Your task to perform on an android device: Add jbl charge 4 to the cart on bestbuy Image 0: 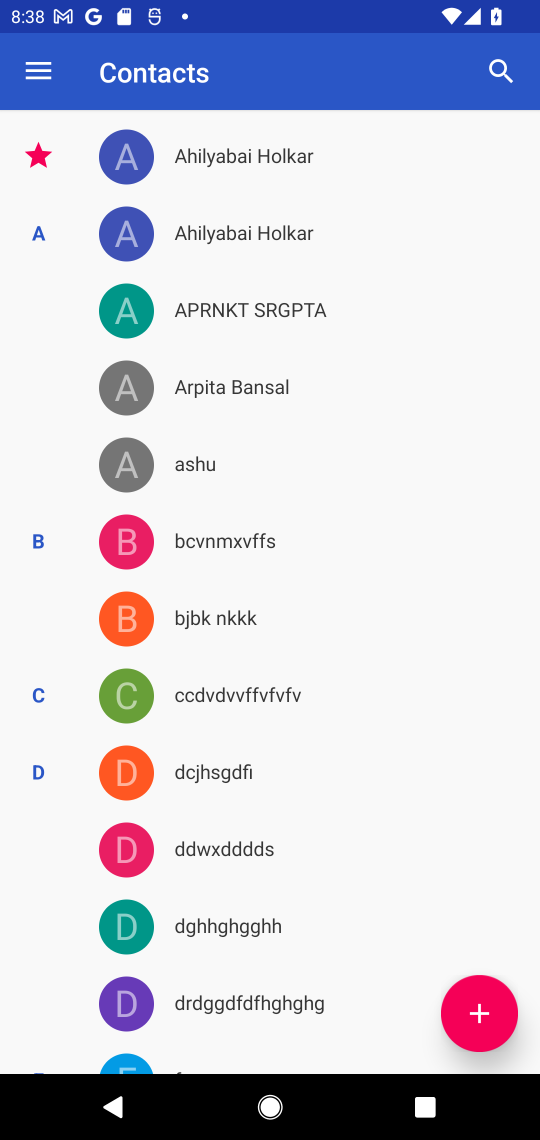
Step 0: press home button
Your task to perform on an android device: Add jbl charge 4 to the cart on bestbuy Image 1: 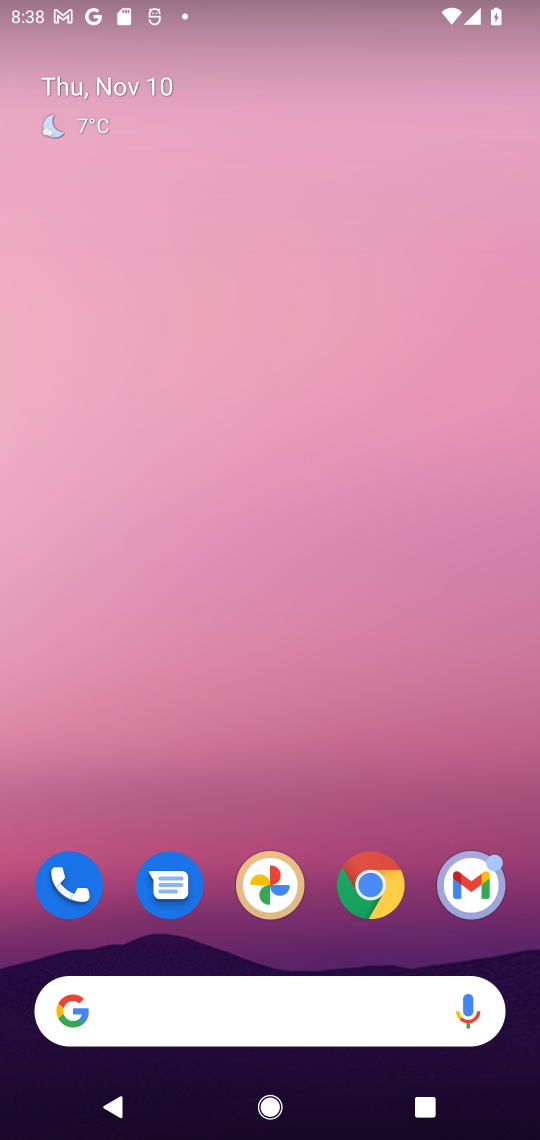
Step 1: click (391, 872)
Your task to perform on an android device: Add jbl charge 4 to the cart on bestbuy Image 2: 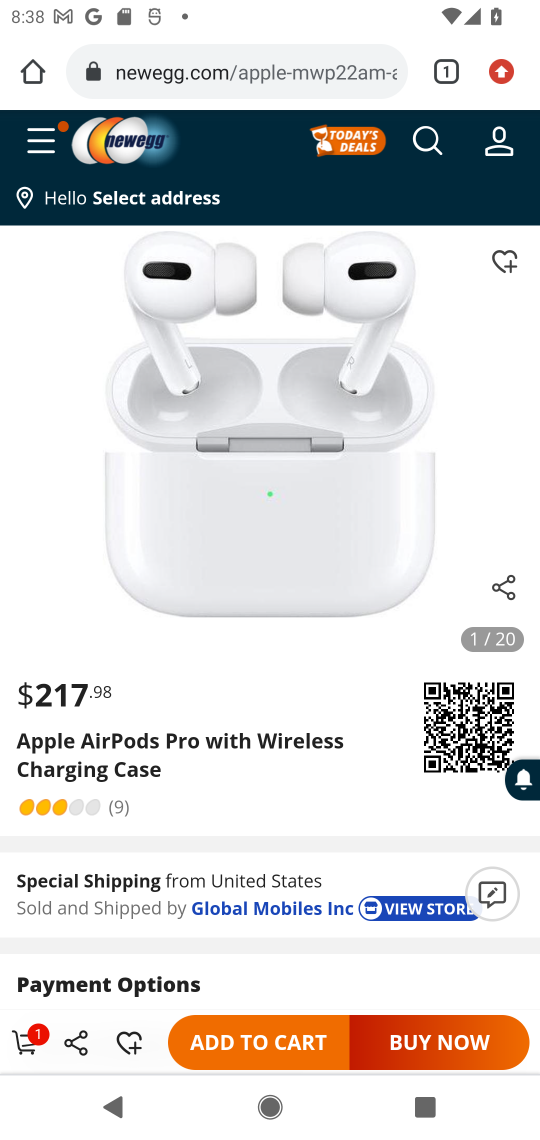
Step 2: click (312, 49)
Your task to perform on an android device: Add jbl charge 4 to the cart on bestbuy Image 3: 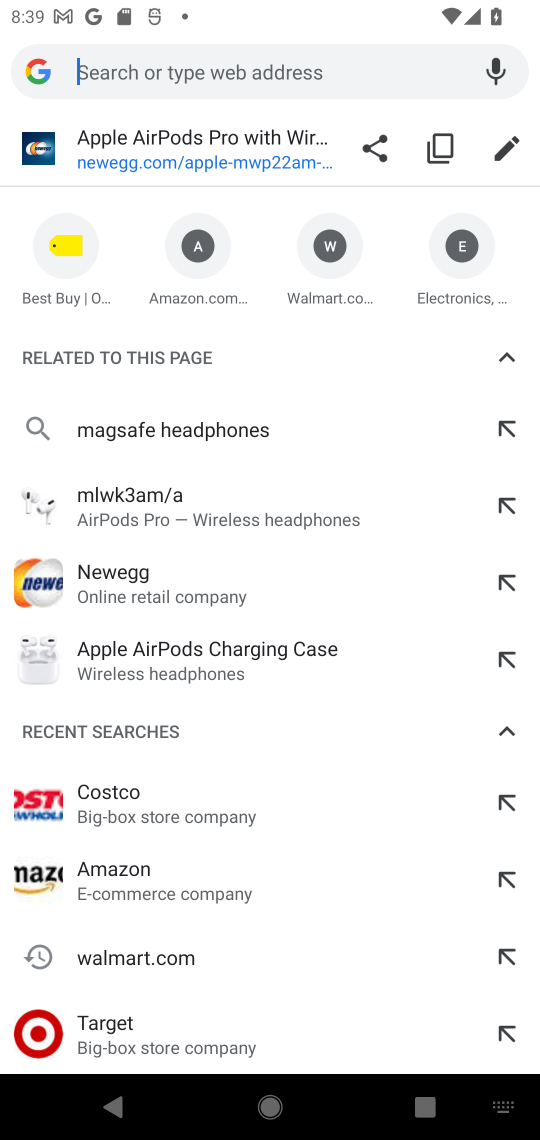
Step 3: type "bestbuy"
Your task to perform on an android device: Add jbl charge 4 to the cart on bestbuy Image 4: 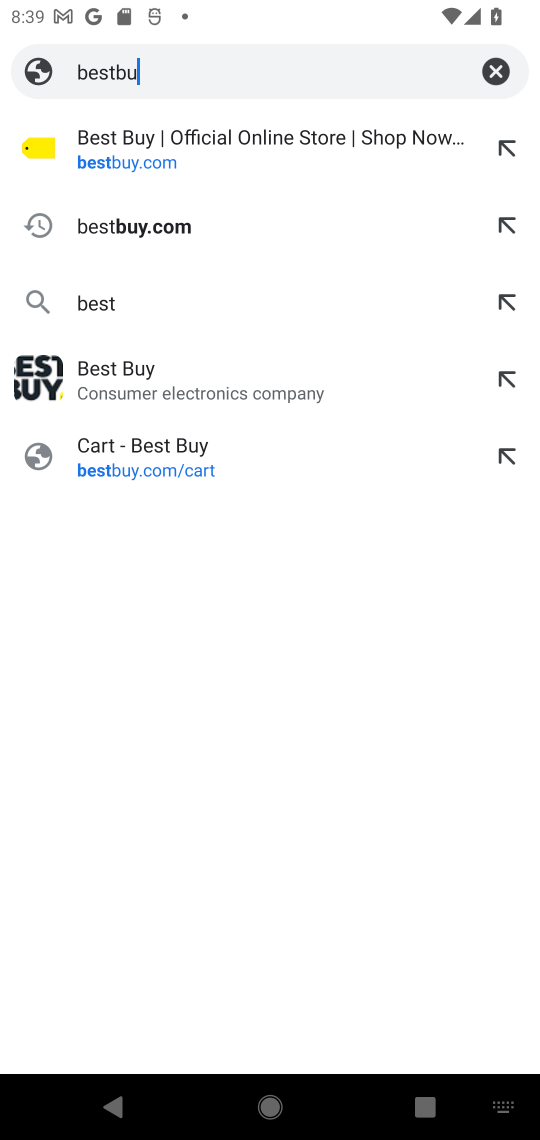
Step 4: press enter
Your task to perform on an android device: Add jbl charge 4 to the cart on bestbuy Image 5: 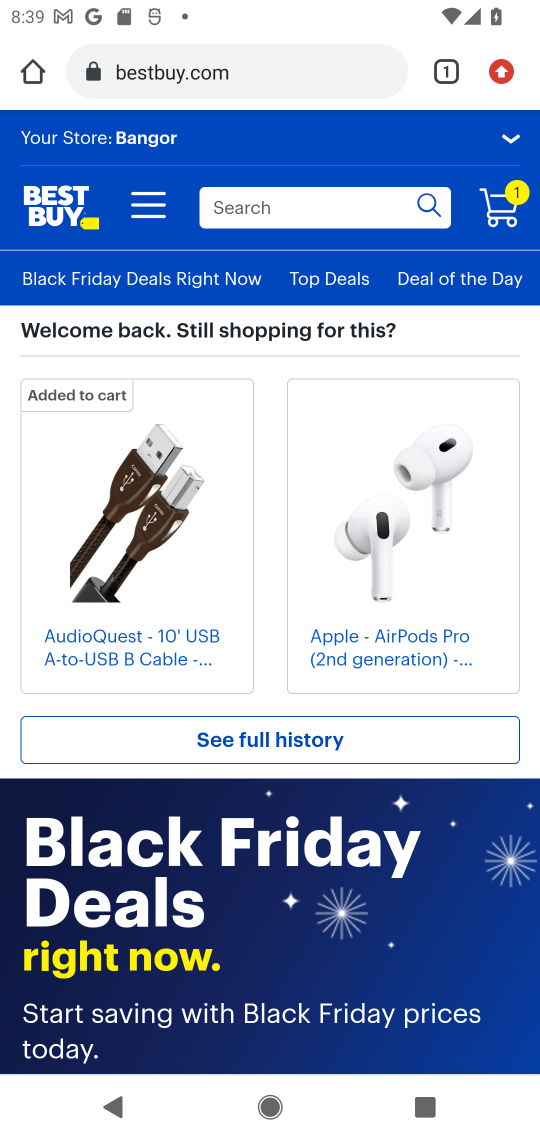
Step 5: click (360, 184)
Your task to perform on an android device: Add jbl charge 4 to the cart on bestbuy Image 6: 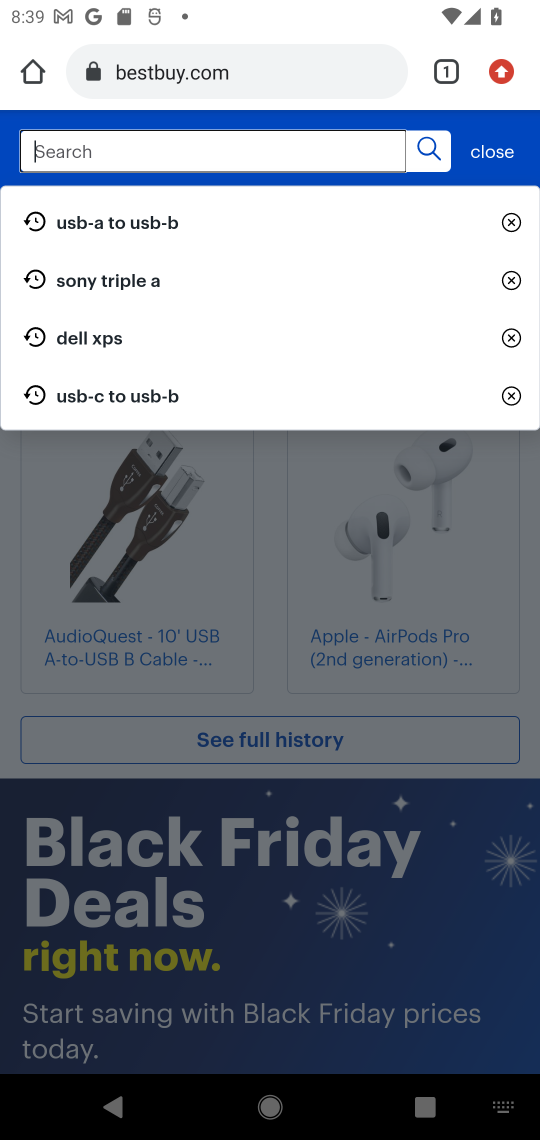
Step 6: type "jbl charge 4"
Your task to perform on an android device: Add jbl charge 4 to the cart on bestbuy Image 7: 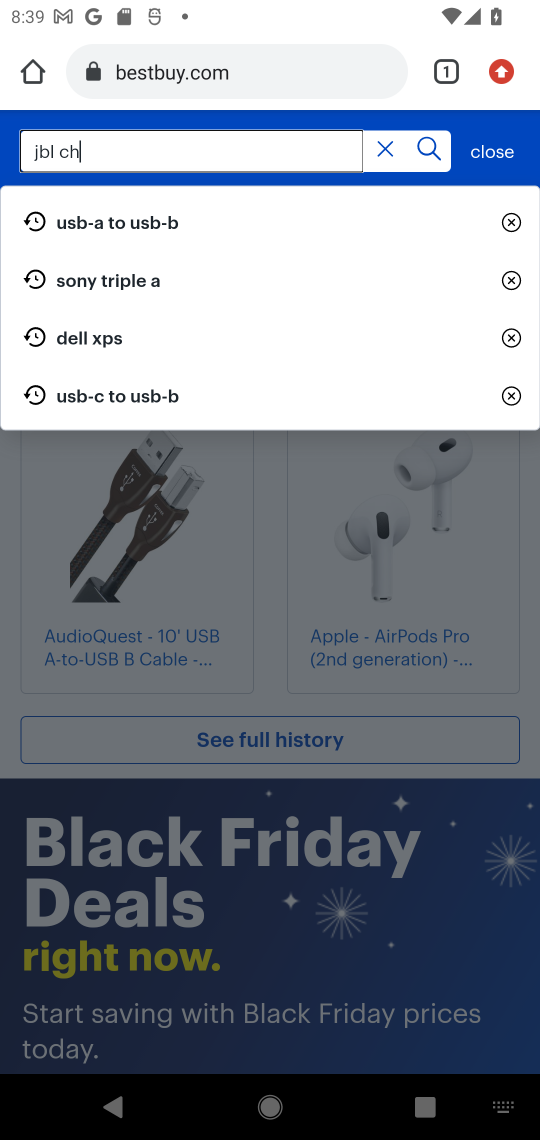
Step 7: press enter
Your task to perform on an android device: Add jbl charge 4 to the cart on bestbuy Image 8: 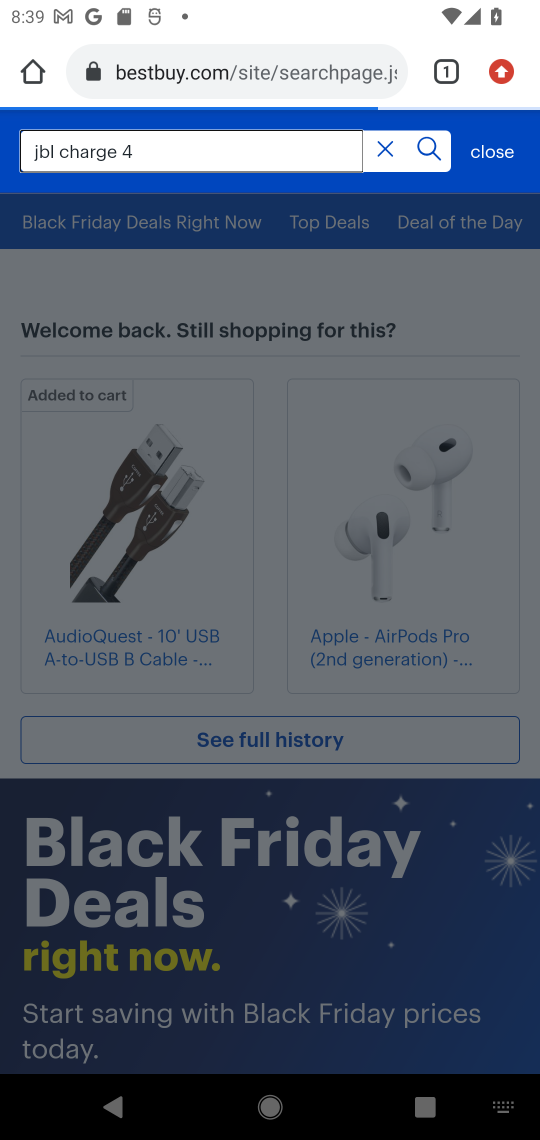
Step 8: click (398, 280)
Your task to perform on an android device: Add jbl charge 4 to the cart on bestbuy Image 9: 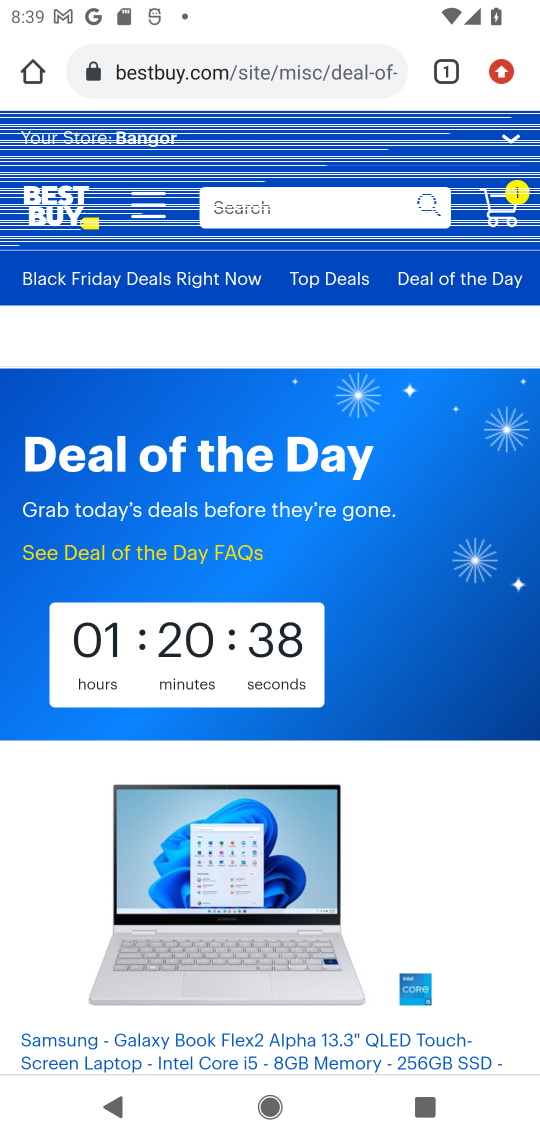
Step 9: task complete